Your task to perform on an android device: Search for sushi restaurants on Maps Image 0: 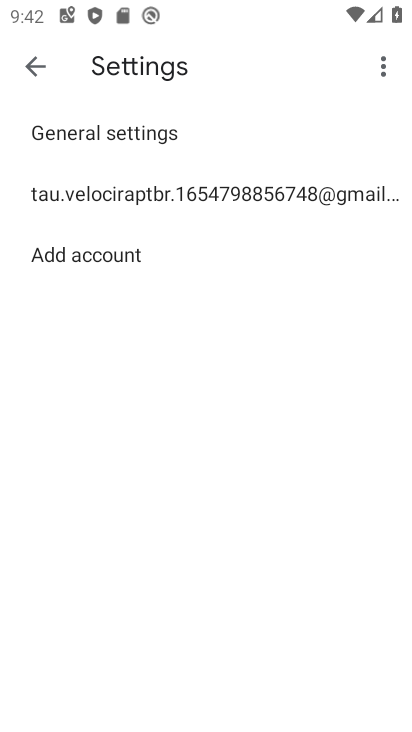
Step 0: press home button
Your task to perform on an android device: Search for sushi restaurants on Maps Image 1: 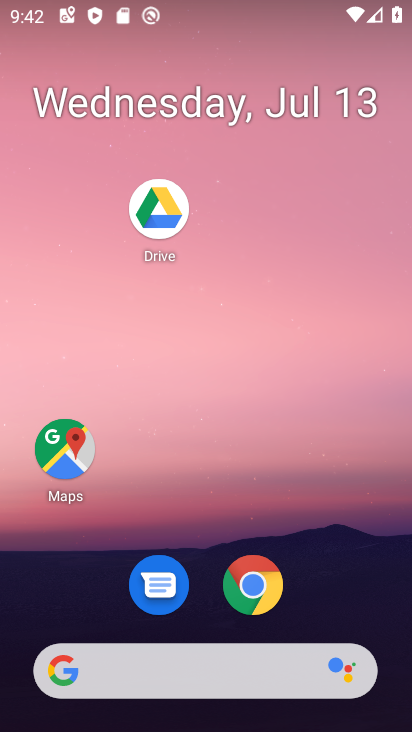
Step 1: click (66, 454)
Your task to perform on an android device: Search for sushi restaurants on Maps Image 2: 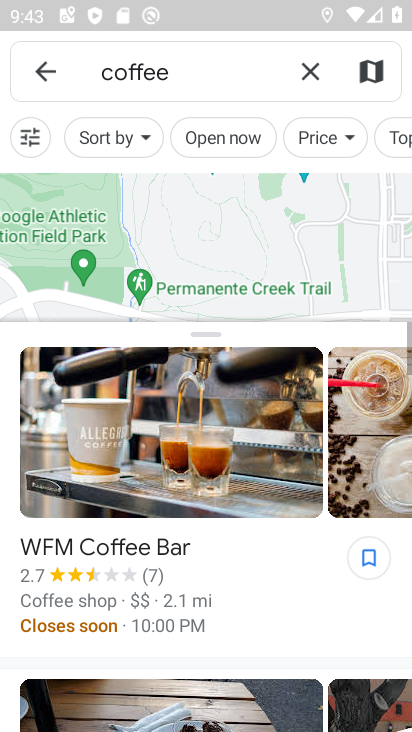
Step 2: click (309, 72)
Your task to perform on an android device: Search for sushi restaurants on Maps Image 3: 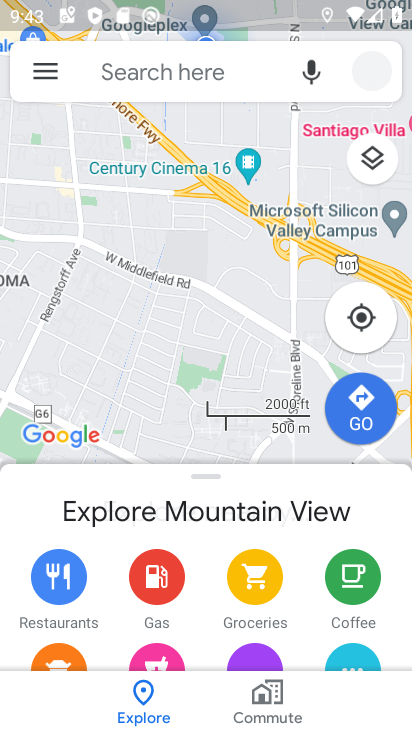
Step 3: click (138, 72)
Your task to perform on an android device: Search for sushi restaurants on Maps Image 4: 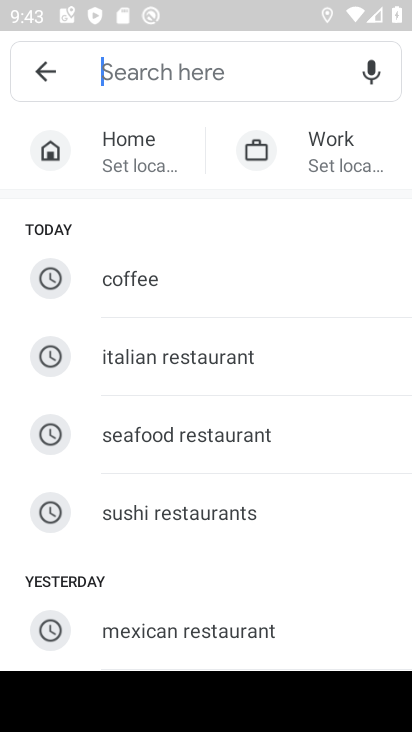
Step 4: type "sushi restaurants"
Your task to perform on an android device: Search for sushi restaurants on Maps Image 5: 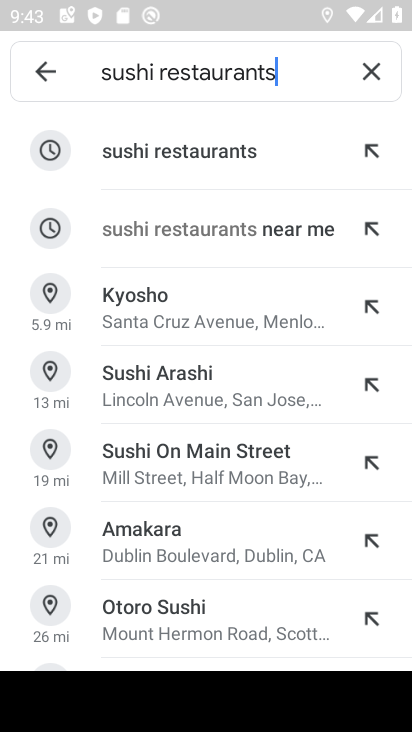
Step 5: click (181, 155)
Your task to perform on an android device: Search for sushi restaurants on Maps Image 6: 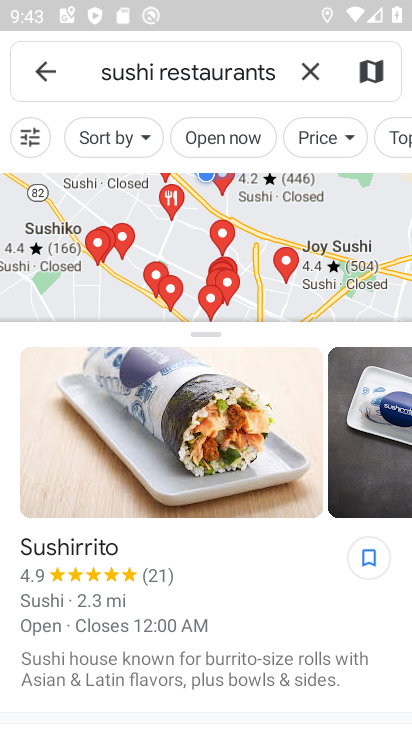
Step 6: task complete